Your task to perform on an android device: Search for acer predator on ebay, select the first entry, add it to the cart, then select checkout. Image 0: 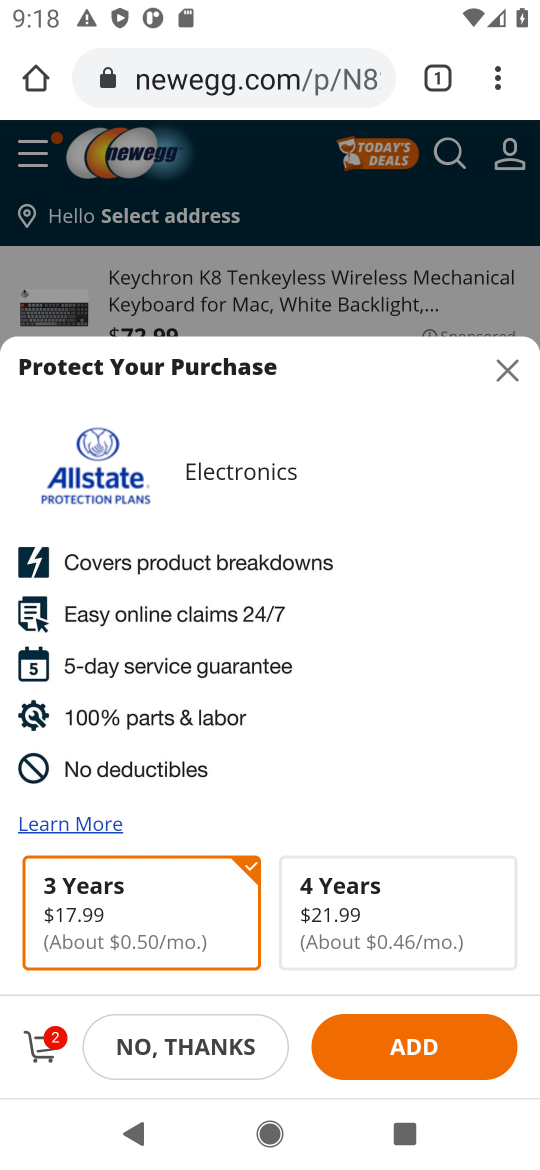
Step 0: click (287, 91)
Your task to perform on an android device: Search for acer predator on ebay, select the first entry, add it to the cart, then select checkout. Image 1: 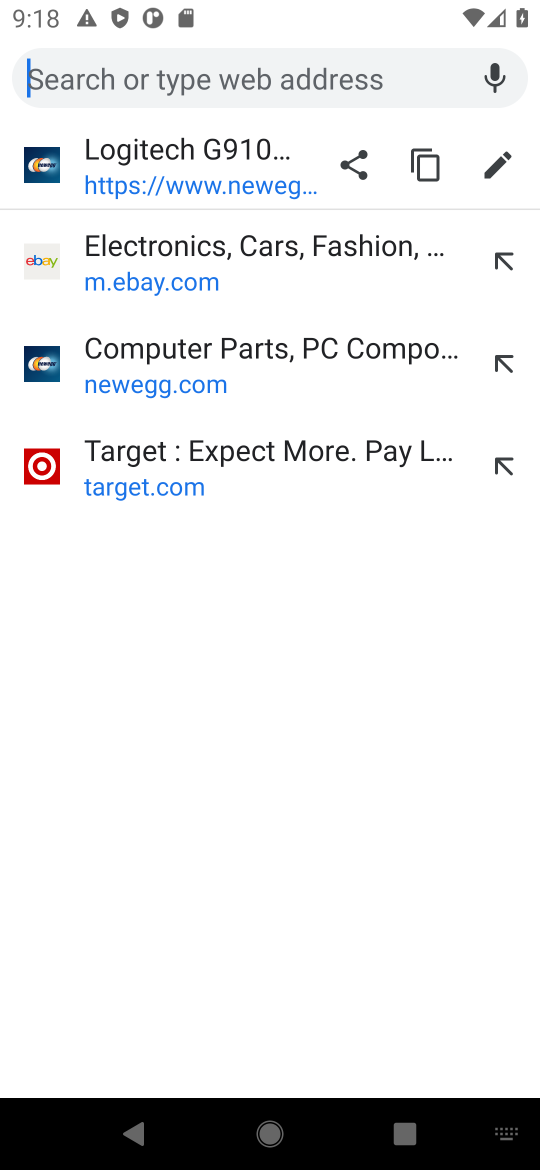
Step 1: type "ebay"
Your task to perform on an android device: Search for acer predator on ebay, select the first entry, add it to the cart, then select checkout. Image 2: 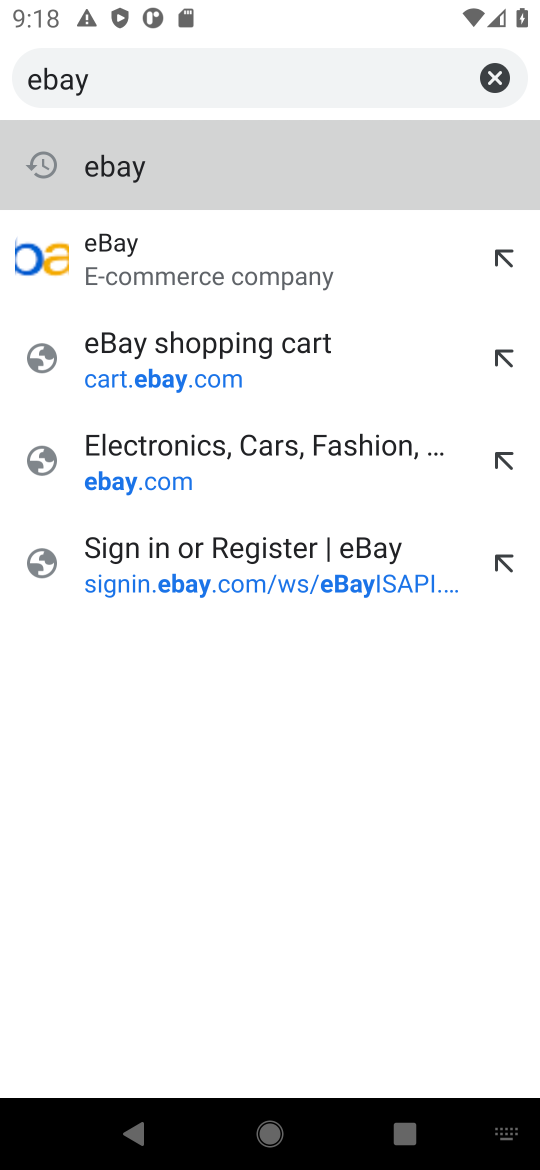
Step 2: click (140, 186)
Your task to perform on an android device: Search for acer predator on ebay, select the first entry, add it to the cart, then select checkout. Image 3: 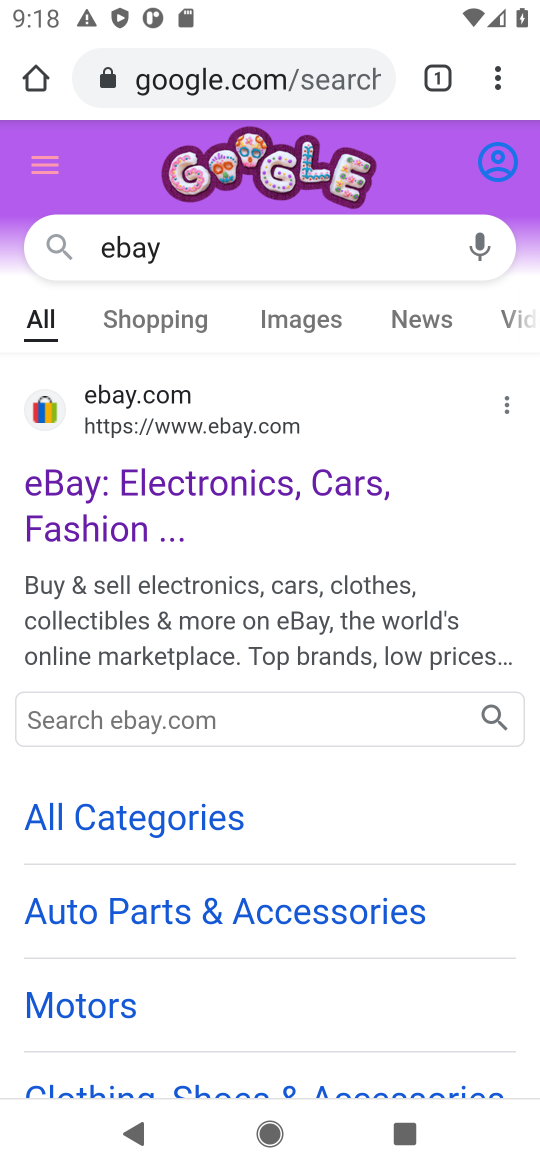
Step 3: click (73, 480)
Your task to perform on an android device: Search for acer predator on ebay, select the first entry, add it to the cart, then select checkout. Image 4: 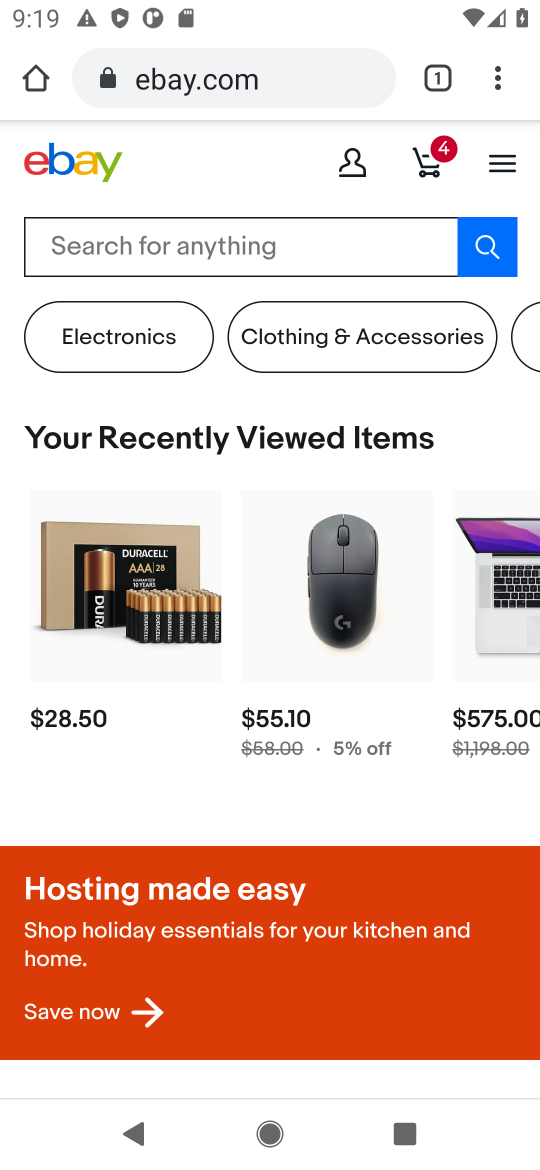
Step 4: click (102, 242)
Your task to perform on an android device: Search for acer predator on ebay, select the first entry, add it to the cart, then select checkout. Image 5: 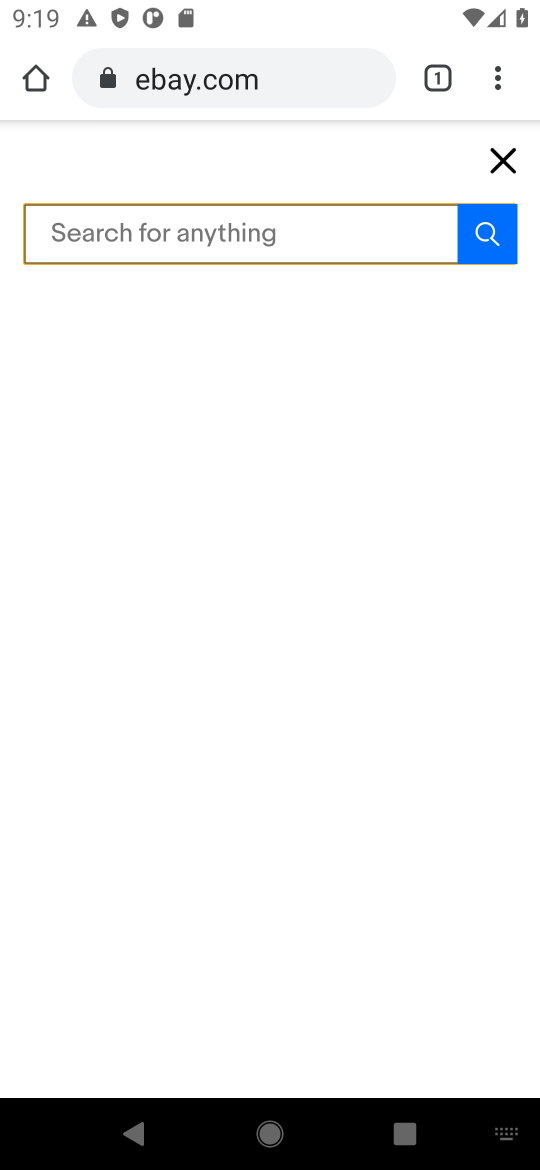
Step 5: type "acer predator"
Your task to perform on an android device: Search for acer predator on ebay, select the first entry, add it to the cart, then select checkout. Image 6: 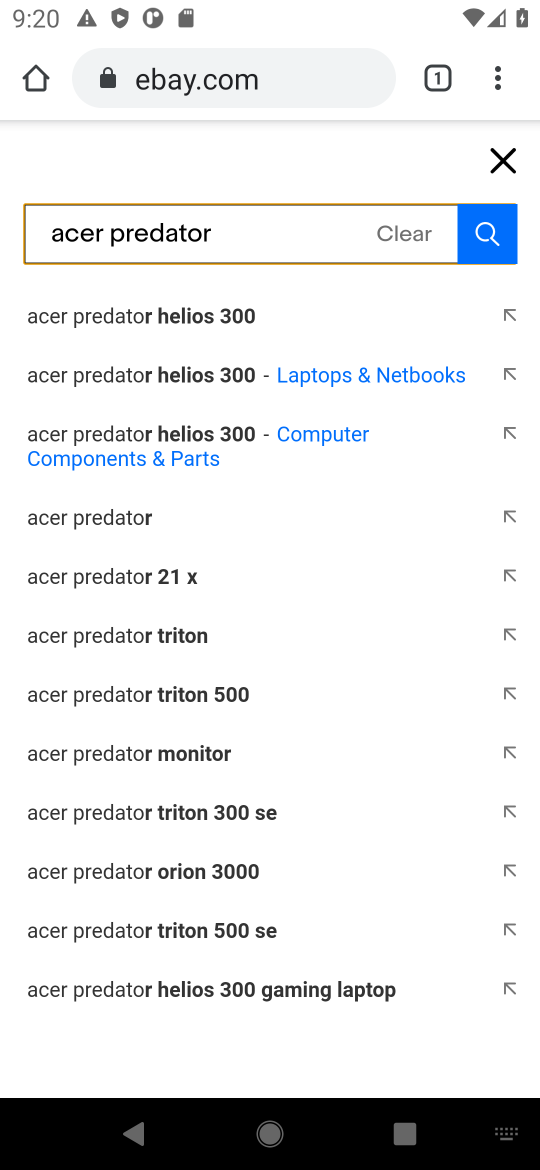
Step 6: click (491, 227)
Your task to perform on an android device: Search for acer predator on ebay, select the first entry, add it to the cart, then select checkout. Image 7: 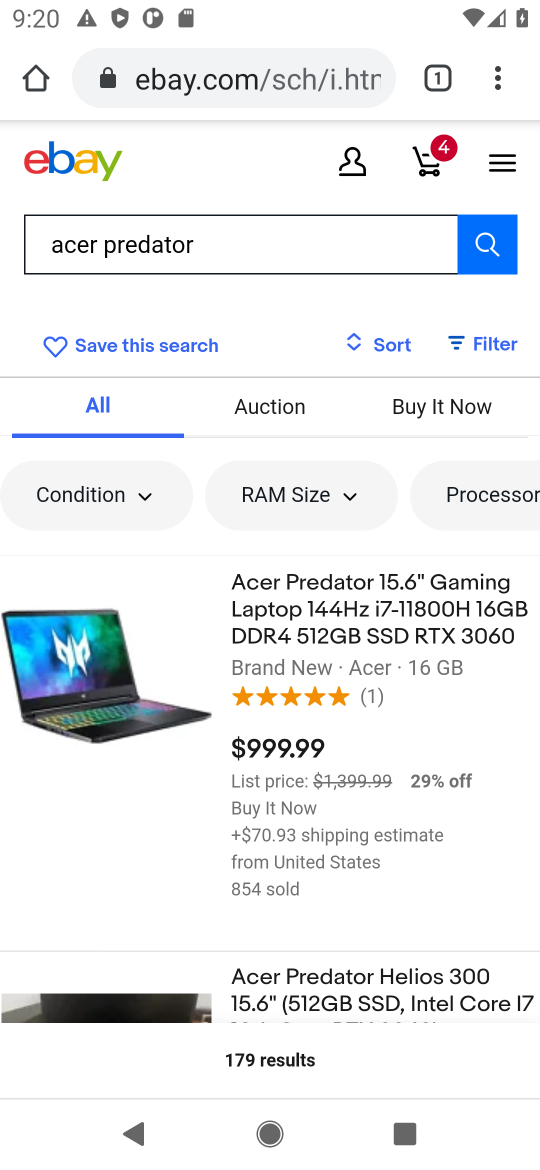
Step 7: click (305, 607)
Your task to perform on an android device: Search for acer predator on ebay, select the first entry, add it to the cart, then select checkout. Image 8: 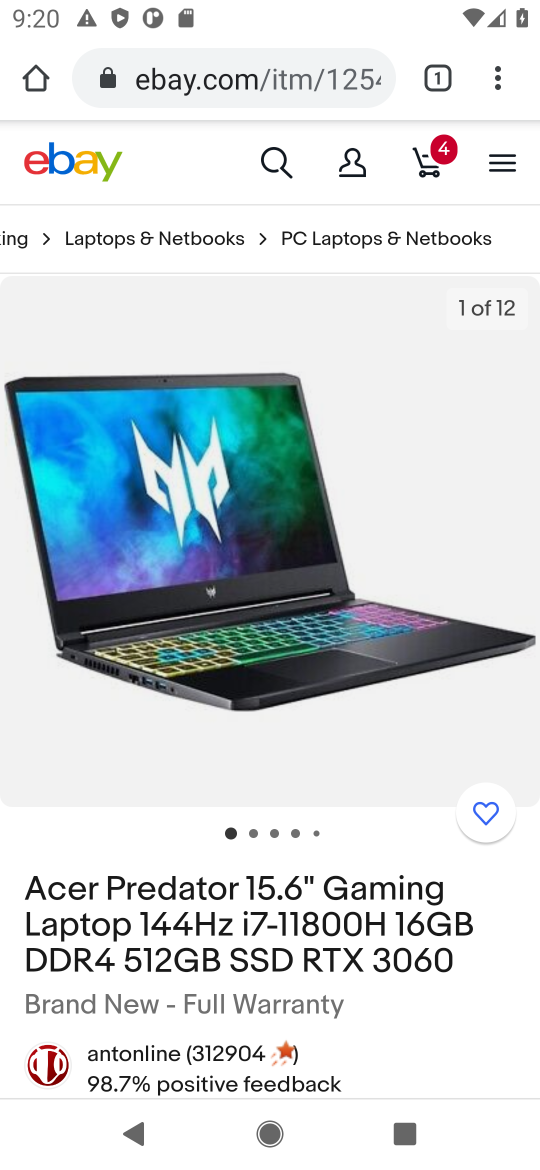
Step 8: drag from (400, 1011) to (335, 339)
Your task to perform on an android device: Search for acer predator on ebay, select the first entry, add it to the cart, then select checkout. Image 9: 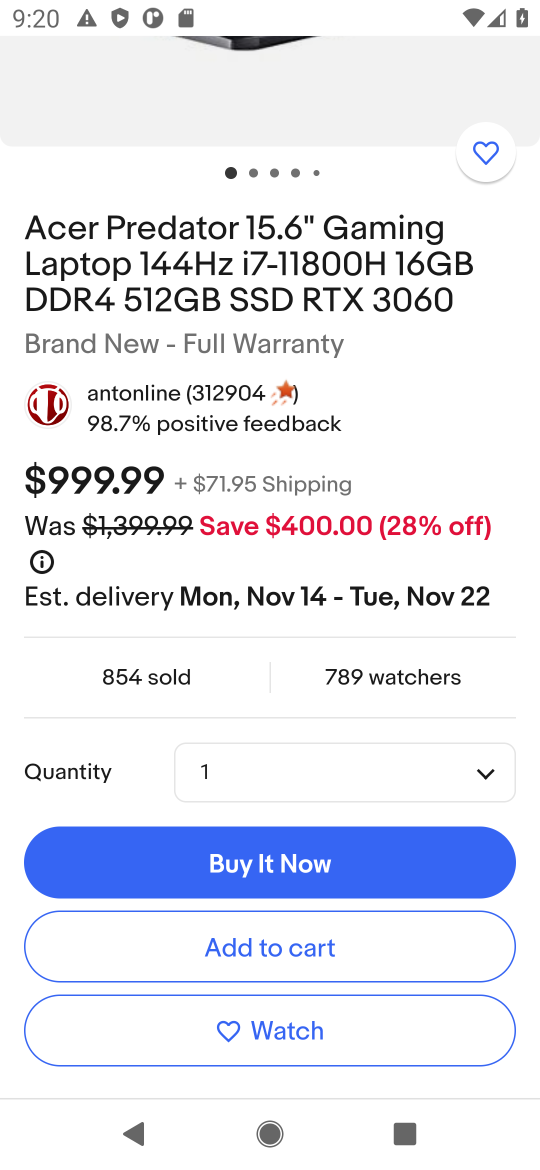
Step 9: click (232, 951)
Your task to perform on an android device: Search for acer predator on ebay, select the first entry, add it to the cart, then select checkout. Image 10: 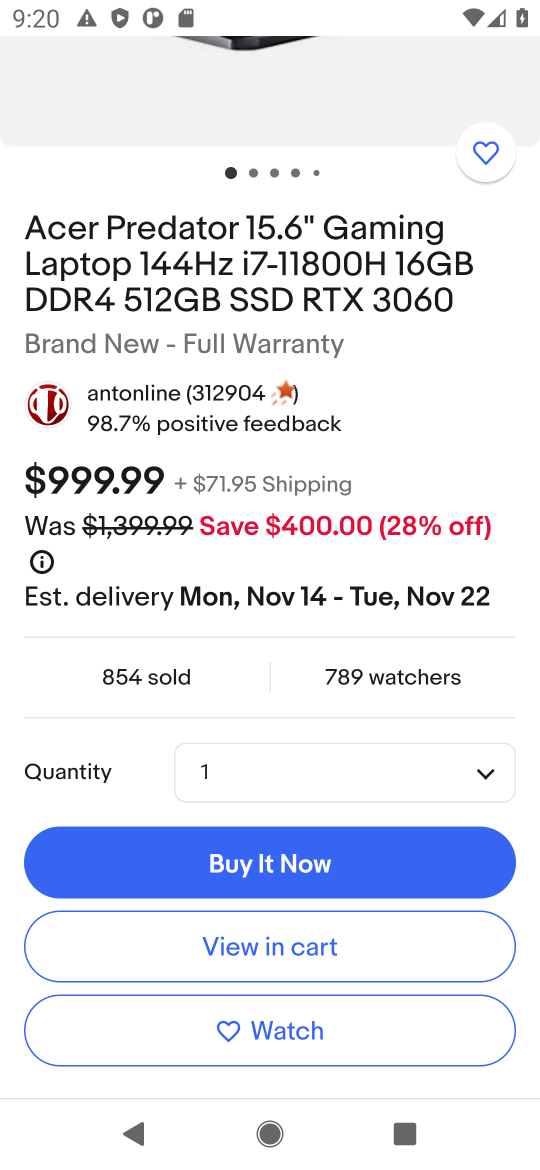
Step 10: click (301, 949)
Your task to perform on an android device: Search for acer predator on ebay, select the first entry, add it to the cart, then select checkout. Image 11: 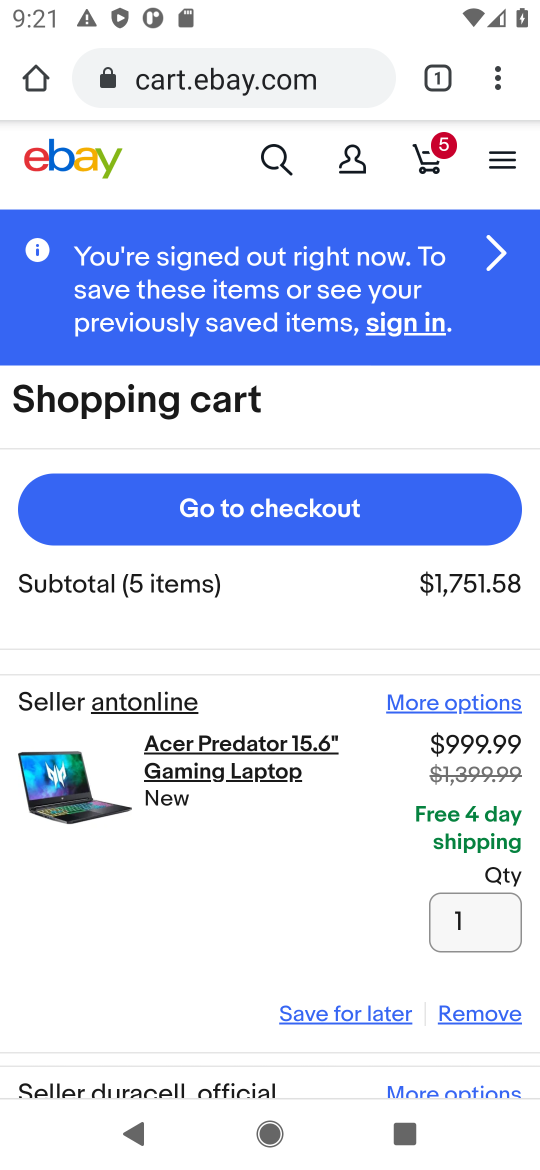
Step 11: click (270, 507)
Your task to perform on an android device: Search for acer predator on ebay, select the first entry, add it to the cart, then select checkout. Image 12: 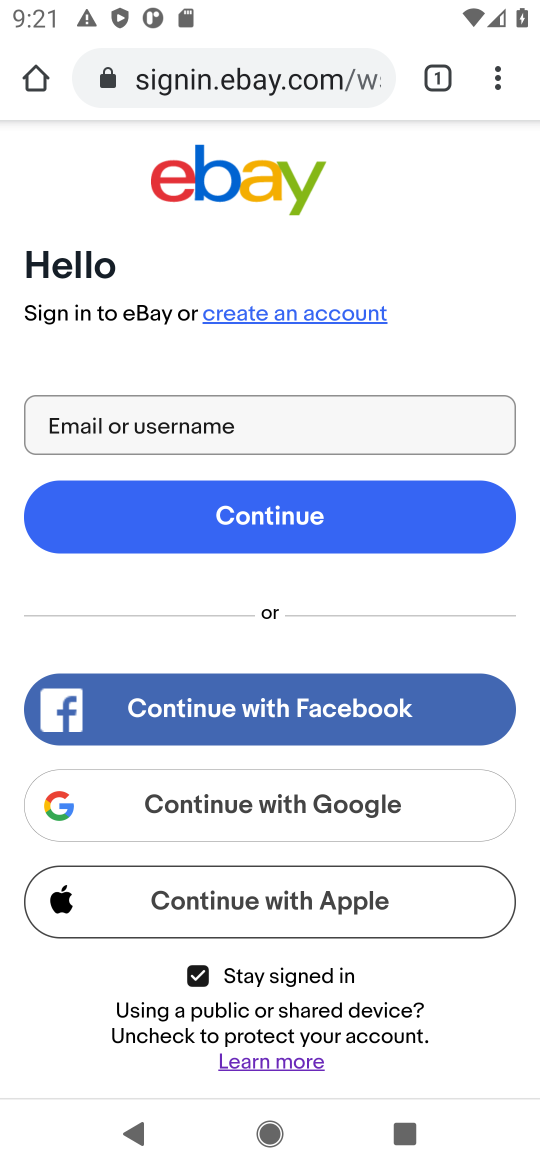
Step 12: task complete